Your task to perform on an android device: refresh tabs in the chrome app Image 0: 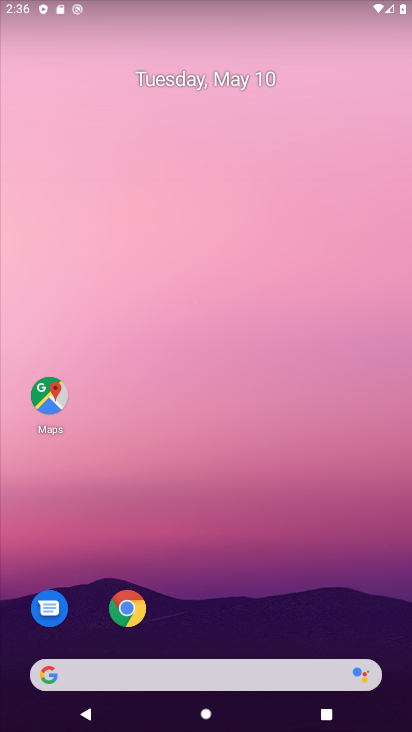
Step 0: click (128, 608)
Your task to perform on an android device: refresh tabs in the chrome app Image 1: 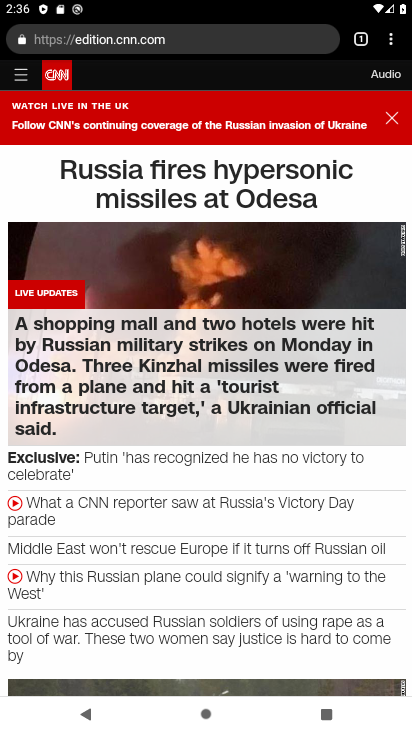
Step 1: click (390, 42)
Your task to perform on an android device: refresh tabs in the chrome app Image 2: 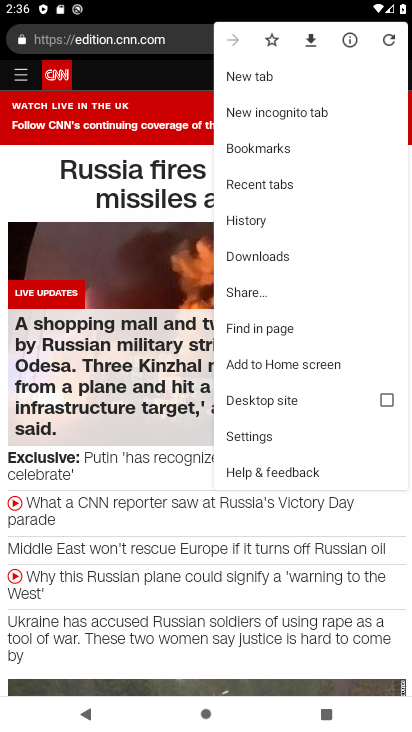
Step 2: click (387, 39)
Your task to perform on an android device: refresh tabs in the chrome app Image 3: 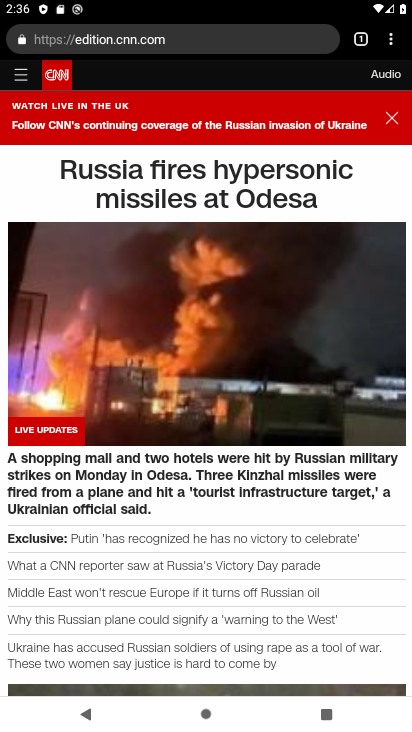
Step 3: task complete